Your task to perform on an android device: Search for seafood restaurants on Google Maps Image 0: 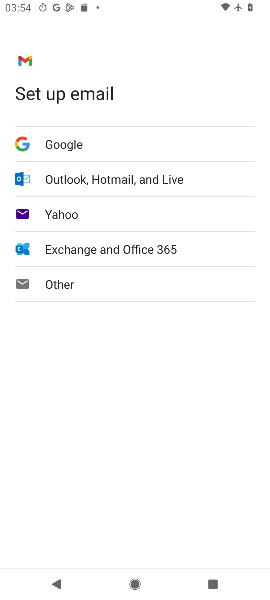
Step 0: press home button
Your task to perform on an android device: Search for seafood restaurants on Google Maps Image 1: 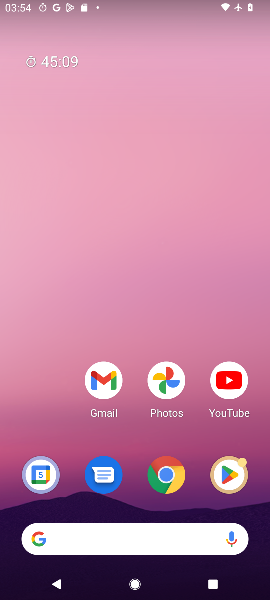
Step 1: drag from (50, 430) to (43, 221)
Your task to perform on an android device: Search for seafood restaurants on Google Maps Image 2: 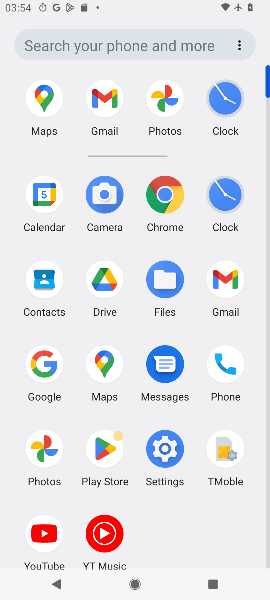
Step 2: click (102, 364)
Your task to perform on an android device: Search for seafood restaurants on Google Maps Image 3: 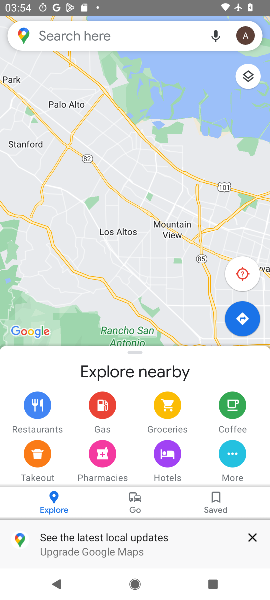
Step 3: click (135, 36)
Your task to perform on an android device: Search for seafood restaurants on Google Maps Image 4: 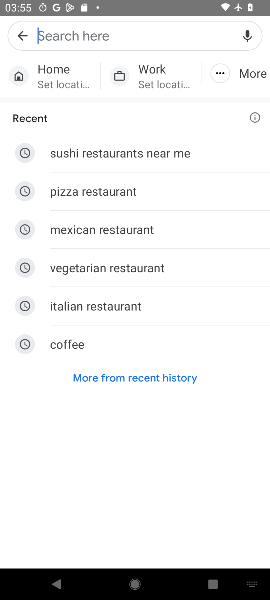
Step 4: type "seafood restaurants"
Your task to perform on an android device: Search for seafood restaurants on Google Maps Image 5: 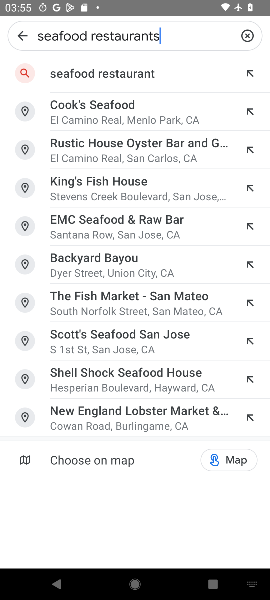
Step 5: click (169, 71)
Your task to perform on an android device: Search for seafood restaurants on Google Maps Image 6: 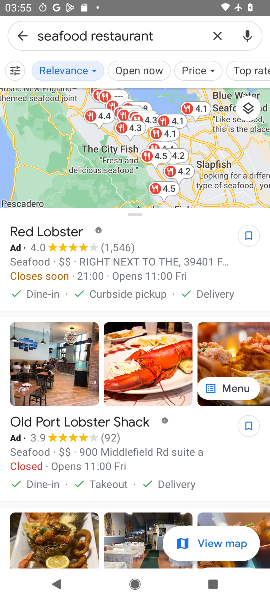
Step 6: task complete